Your task to perform on an android device: open wifi settings Image 0: 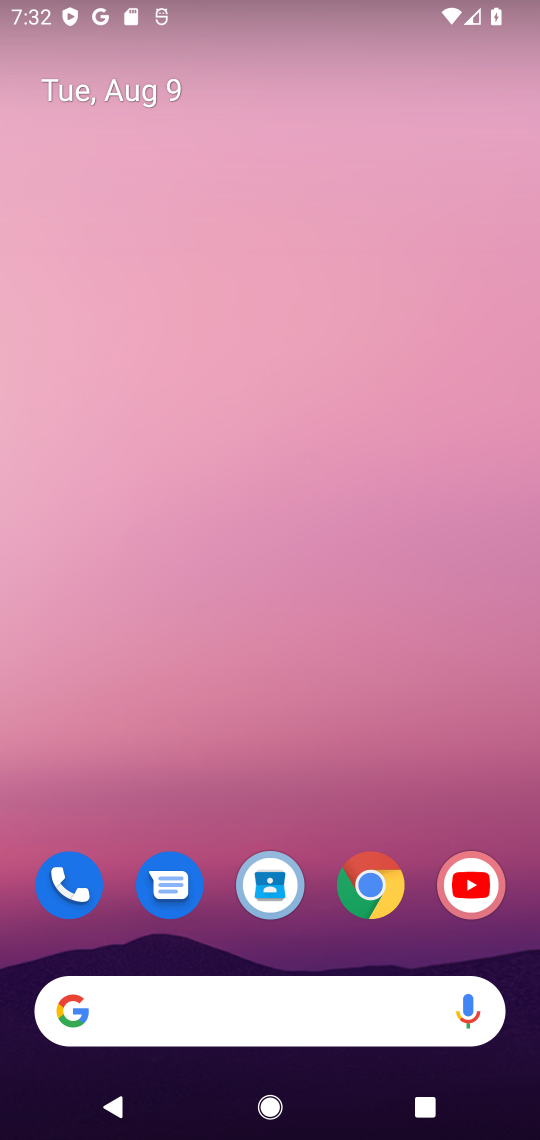
Step 0: drag from (298, 763) to (266, 193)
Your task to perform on an android device: open wifi settings Image 1: 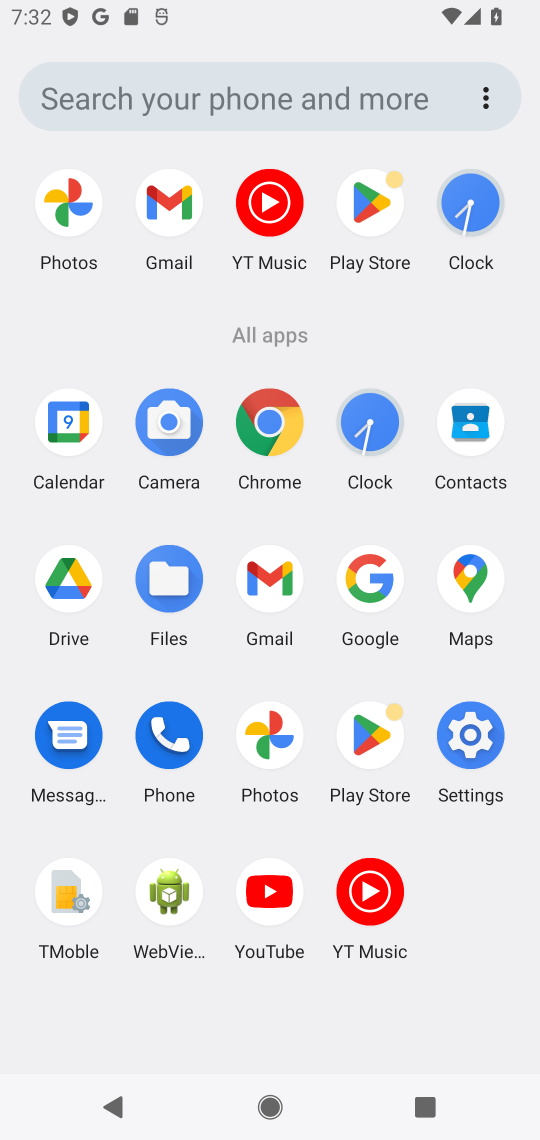
Step 1: click (496, 740)
Your task to perform on an android device: open wifi settings Image 2: 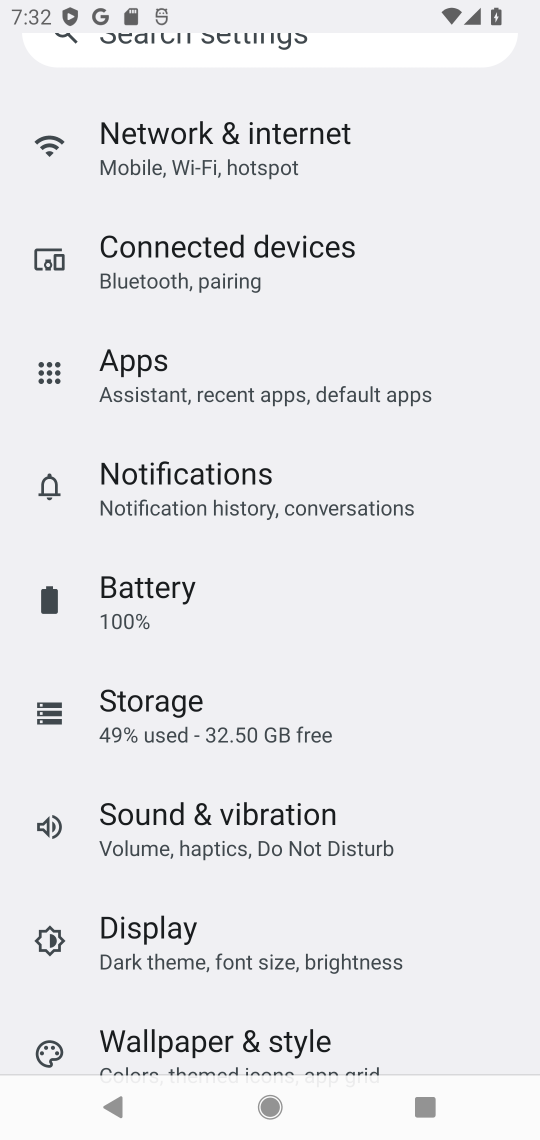
Step 2: click (237, 144)
Your task to perform on an android device: open wifi settings Image 3: 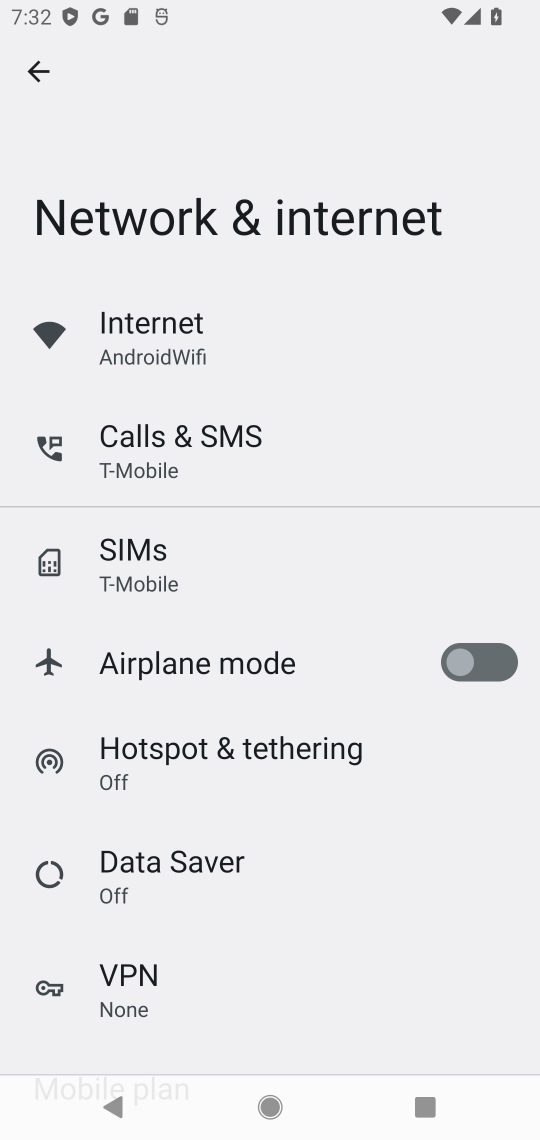
Step 3: task complete